Your task to perform on an android device: add a label to a message in the gmail app Image 0: 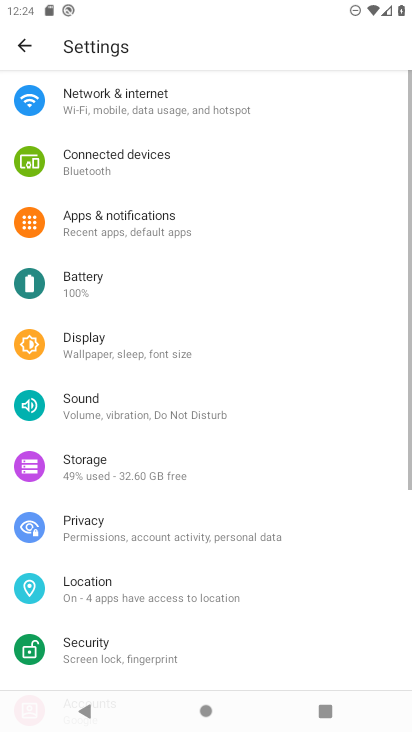
Step 0: press home button
Your task to perform on an android device: add a label to a message in the gmail app Image 1: 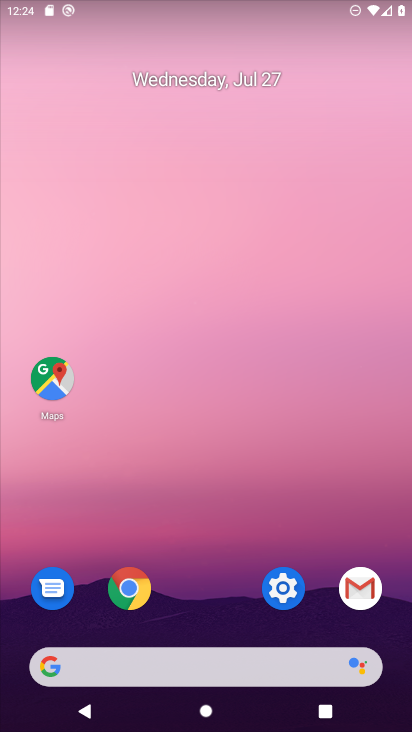
Step 1: click (348, 577)
Your task to perform on an android device: add a label to a message in the gmail app Image 2: 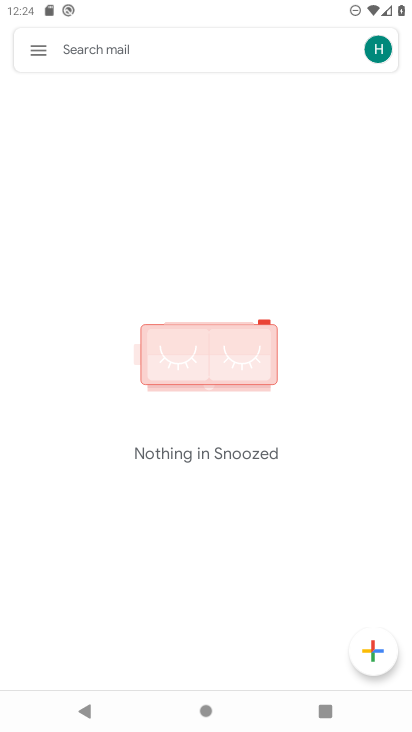
Step 2: click (33, 50)
Your task to perform on an android device: add a label to a message in the gmail app Image 3: 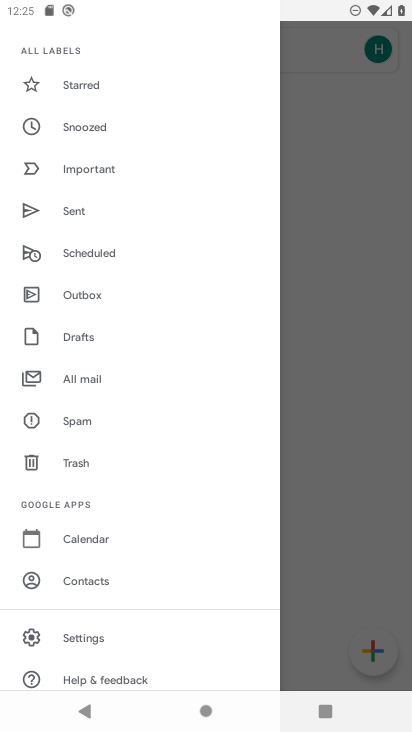
Step 3: click (81, 642)
Your task to perform on an android device: add a label to a message in the gmail app Image 4: 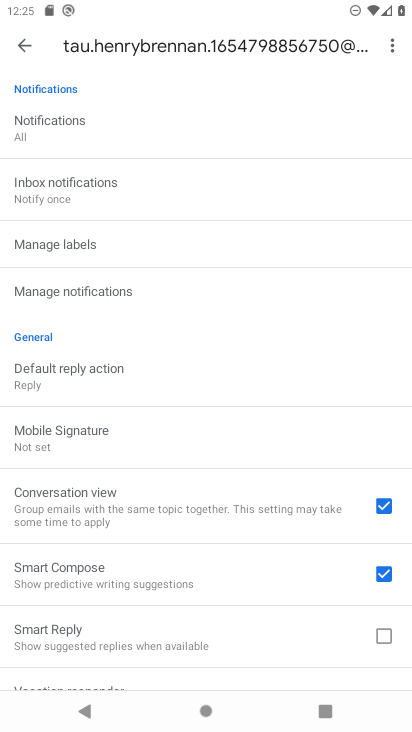
Step 4: click (87, 258)
Your task to perform on an android device: add a label to a message in the gmail app Image 5: 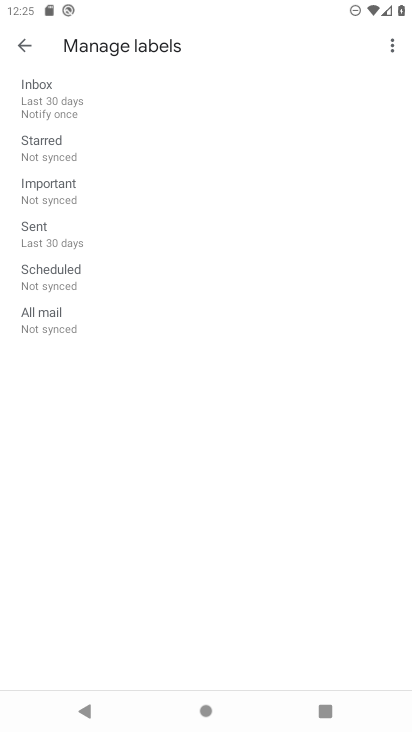
Step 5: click (42, 186)
Your task to perform on an android device: add a label to a message in the gmail app Image 6: 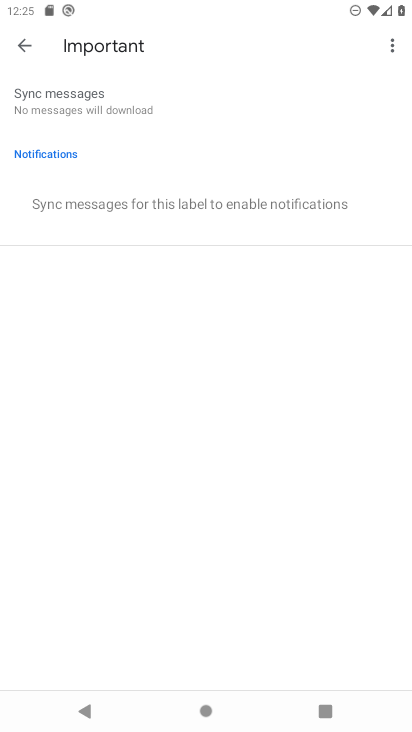
Step 6: task complete